Your task to perform on an android device: Open Google Maps and go to "Timeline" Image 0: 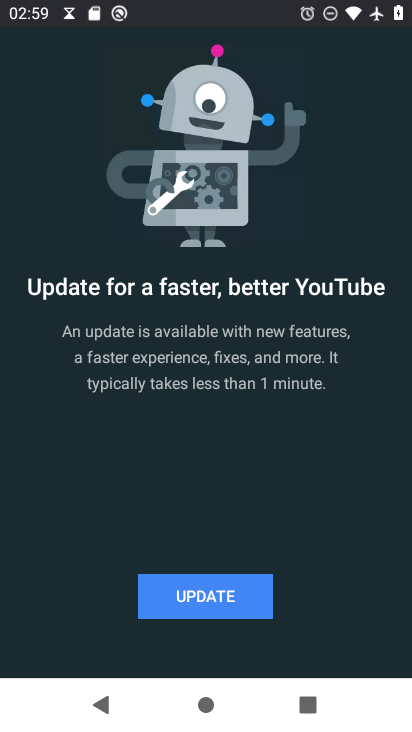
Step 0: press home button
Your task to perform on an android device: Open Google Maps and go to "Timeline" Image 1: 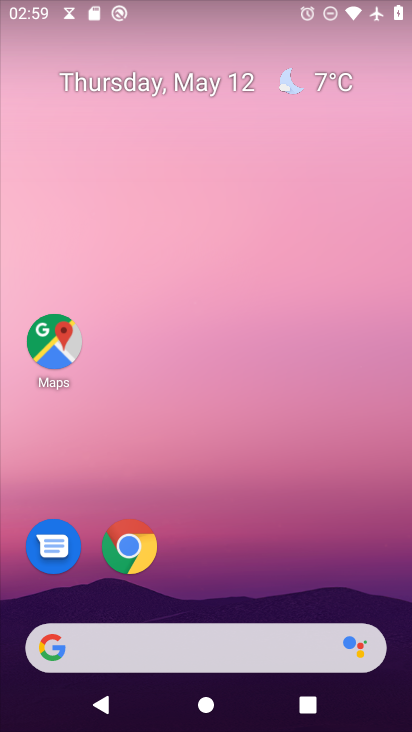
Step 1: drag from (144, 654) to (257, 156)
Your task to perform on an android device: Open Google Maps and go to "Timeline" Image 2: 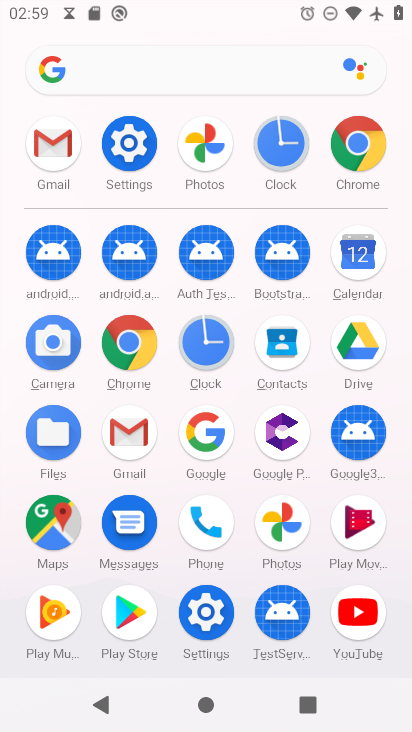
Step 2: click (60, 533)
Your task to perform on an android device: Open Google Maps and go to "Timeline" Image 3: 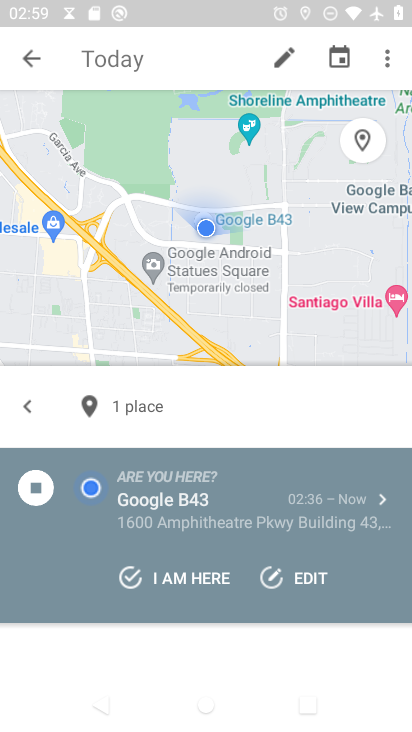
Step 3: click (31, 62)
Your task to perform on an android device: Open Google Maps and go to "Timeline" Image 4: 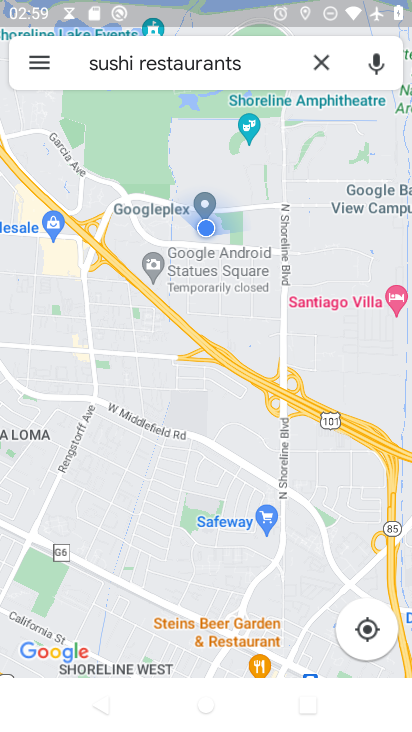
Step 4: click (43, 66)
Your task to perform on an android device: Open Google Maps and go to "Timeline" Image 5: 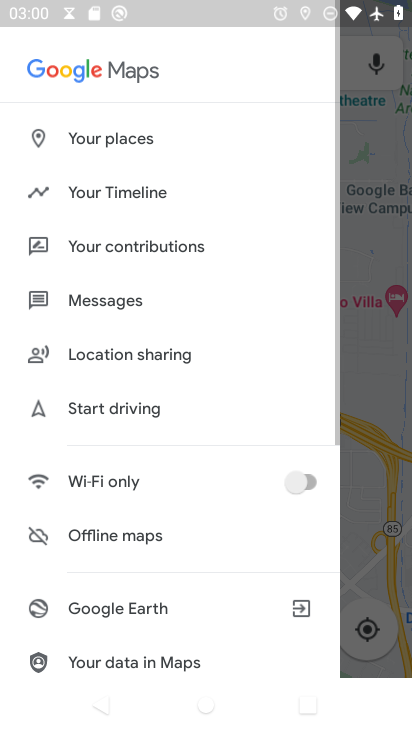
Step 5: click (124, 193)
Your task to perform on an android device: Open Google Maps and go to "Timeline" Image 6: 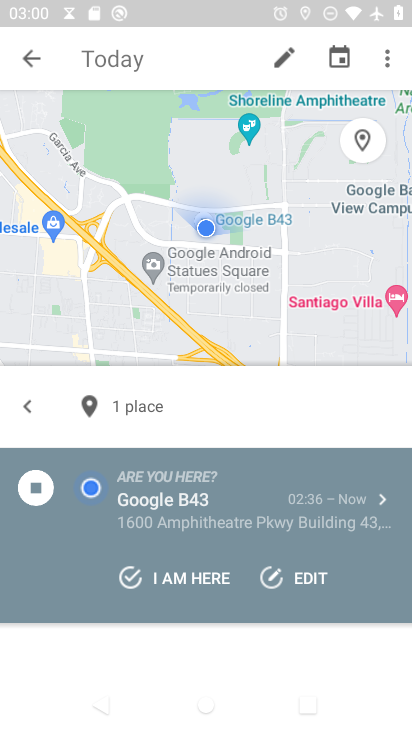
Step 6: task complete